Your task to perform on an android device: Set an alarm for 6am Image 0: 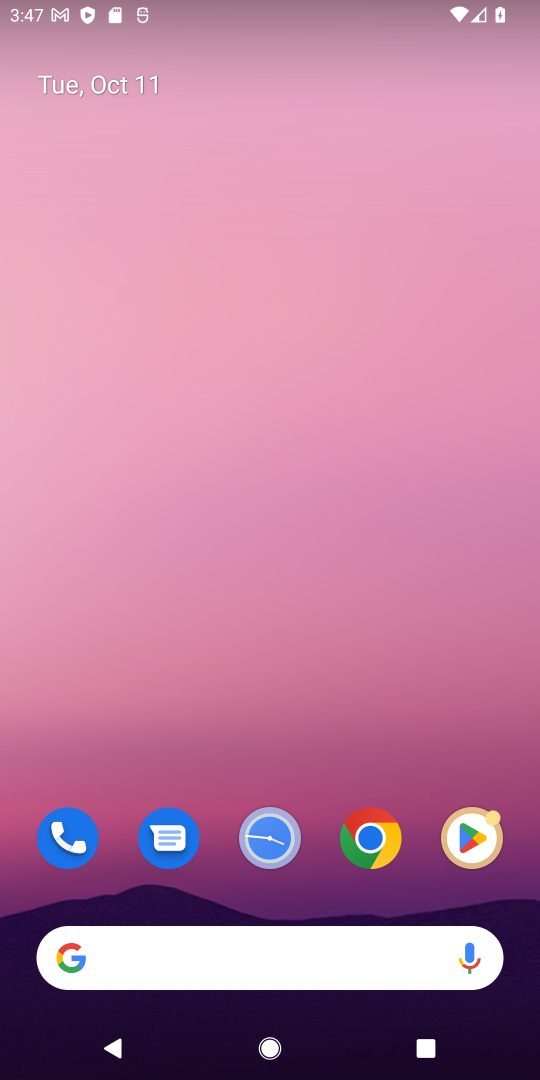
Step 0: click (262, 848)
Your task to perform on an android device: Set an alarm for 6am Image 1: 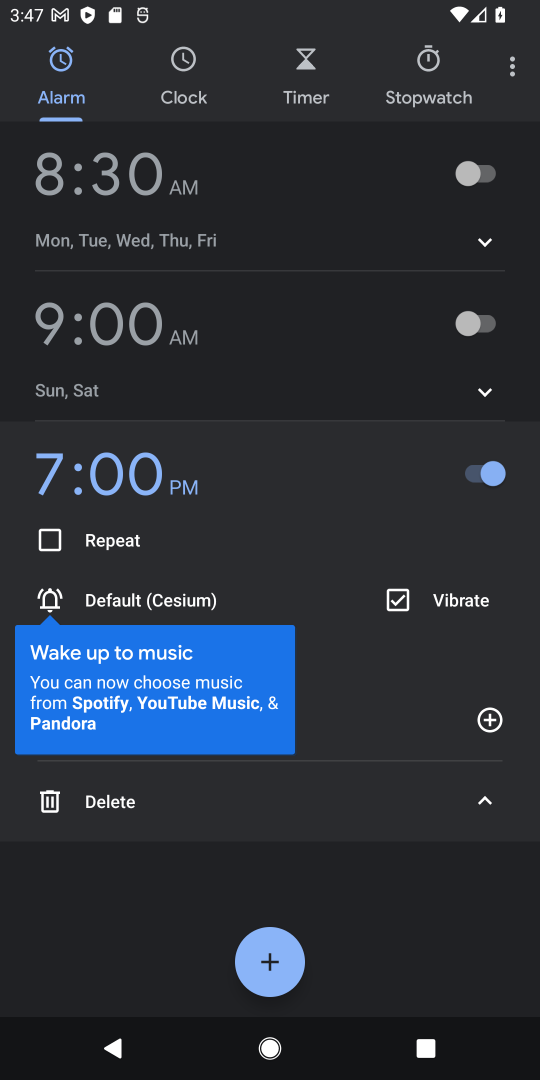
Step 1: click (267, 966)
Your task to perform on an android device: Set an alarm for 6am Image 2: 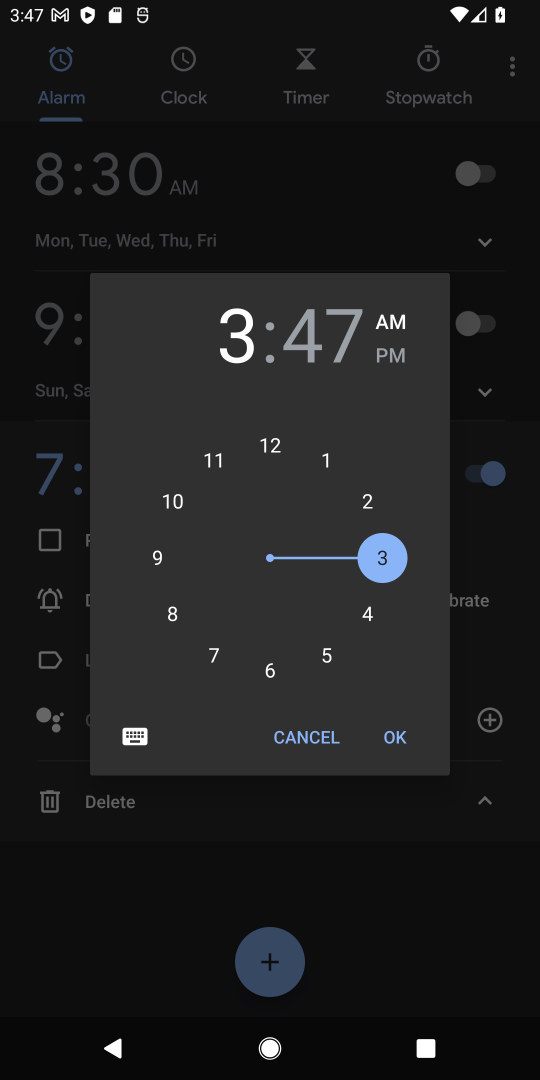
Step 2: click (273, 677)
Your task to perform on an android device: Set an alarm for 6am Image 3: 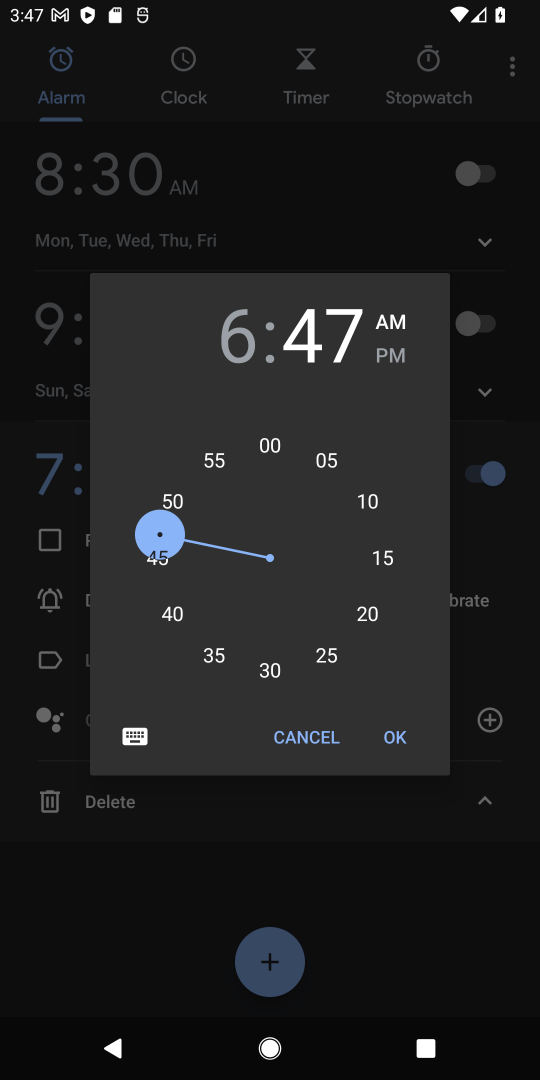
Step 3: click (274, 452)
Your task to perform on an android device: Set an alarm for 6am Image 4: 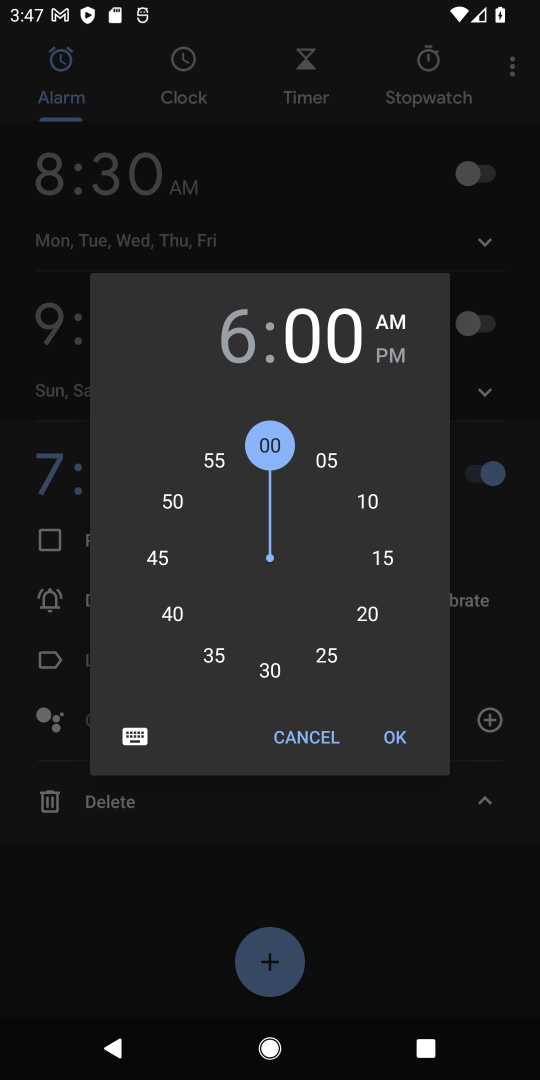
Step 4: click (382, 367)
Your task to perform on an android device: Set an alarm for 6am Image 5: 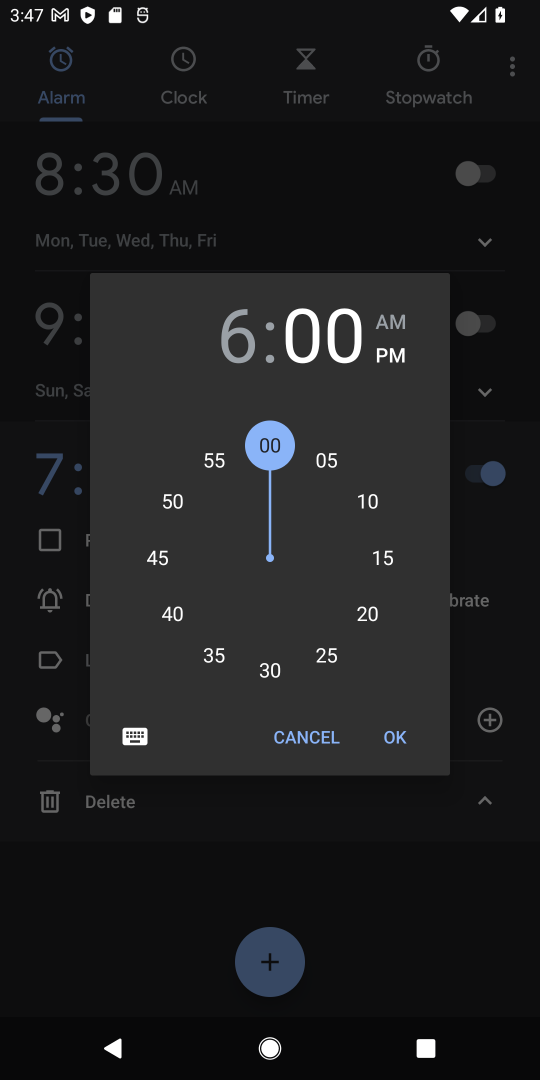
Step 5: click (390, 329)
Your task to perform on an android device: Set an alarm for 6am Image 6: 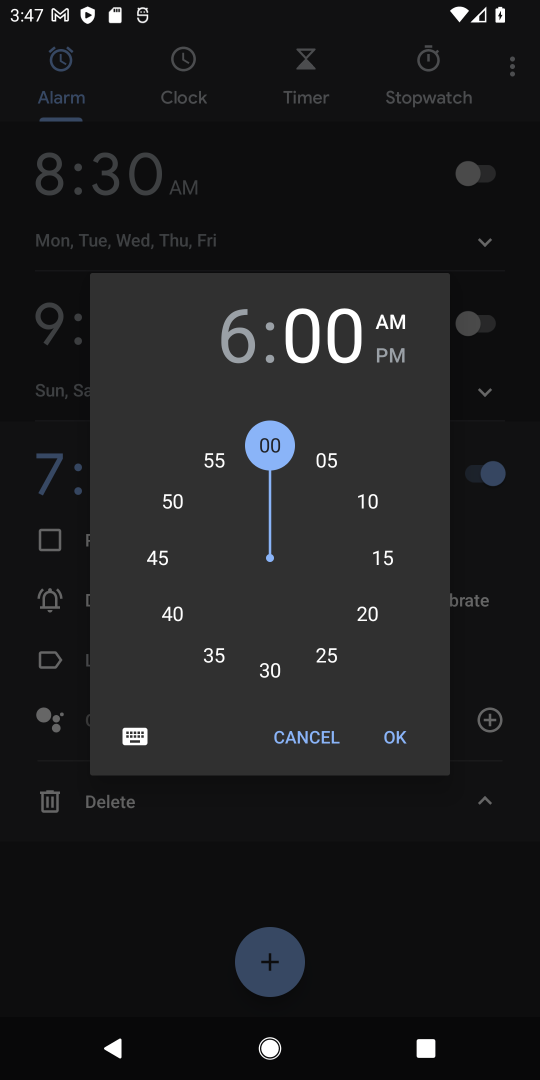
Step 6: click (414, 745)
Your task to perform on an android device: Set an alarm for 6am Image 7: 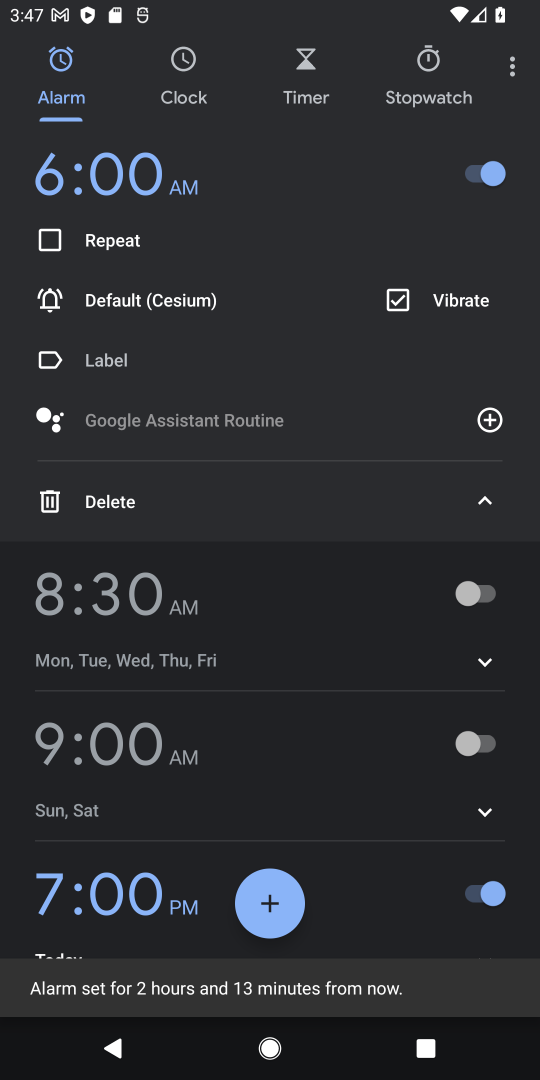
Step 7: task complete